Your task to perform on an android device: toggle translation in the chrome app Image 0: 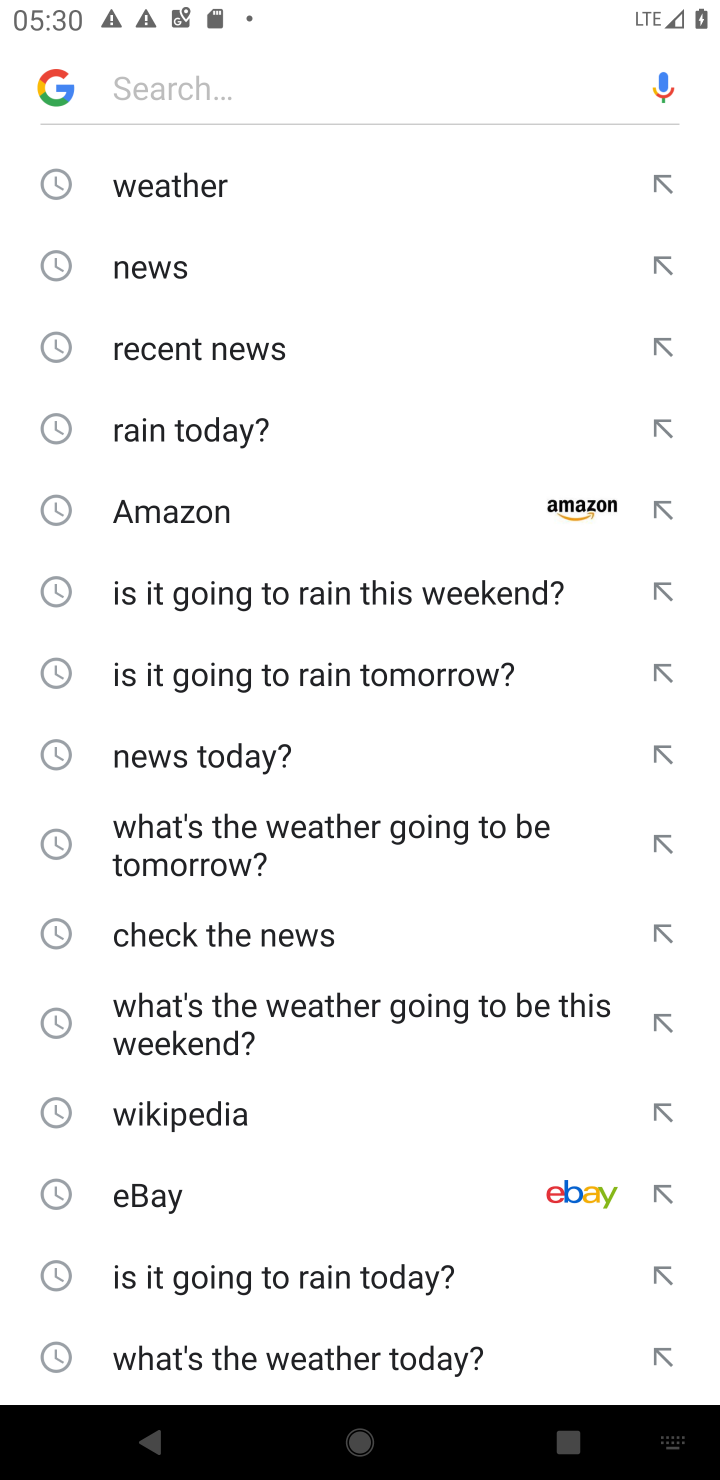
Step 0: press home button
Your task to perform on an android device: toggle translation in the chrome app Image 1: 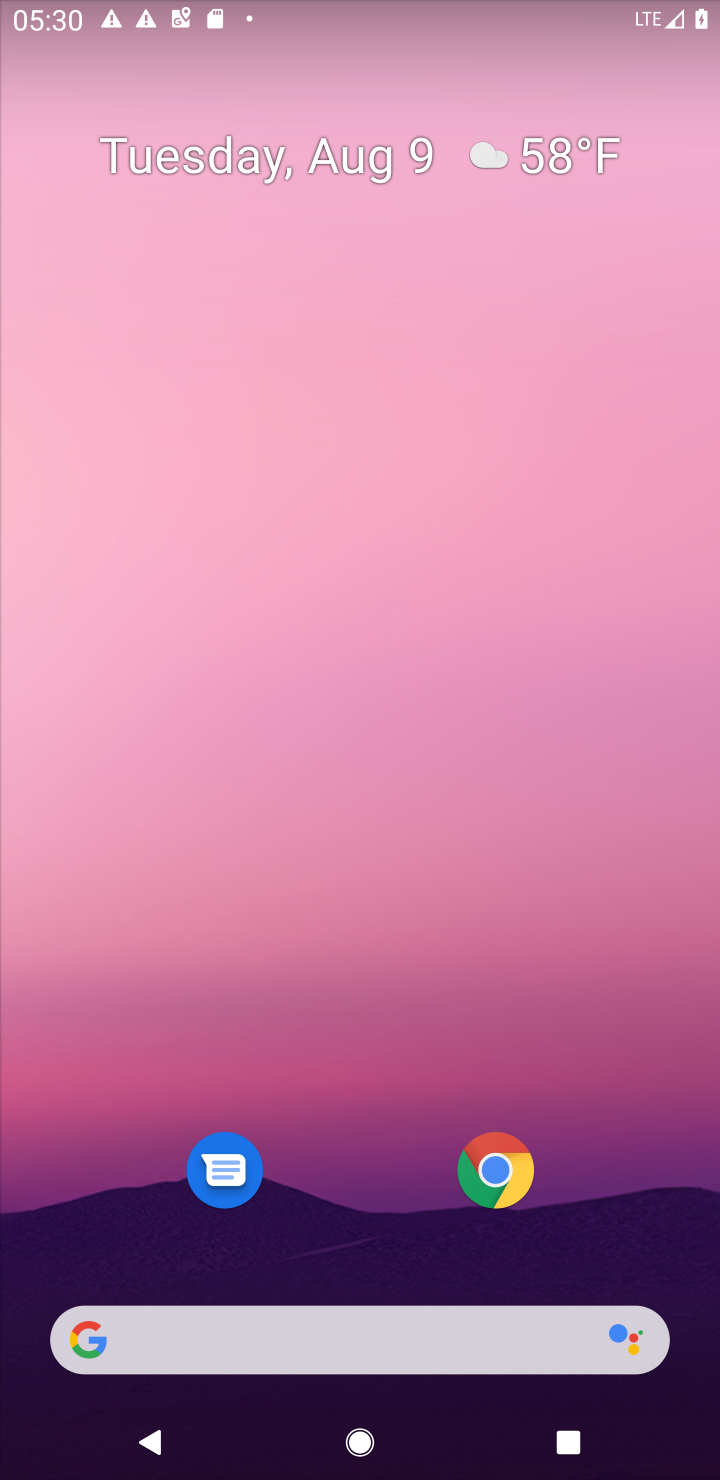
Step 1: drag from (370, 1263) to (18, 709)
Your task to perform on an android device: toggle translation in the chrome app Image 2: 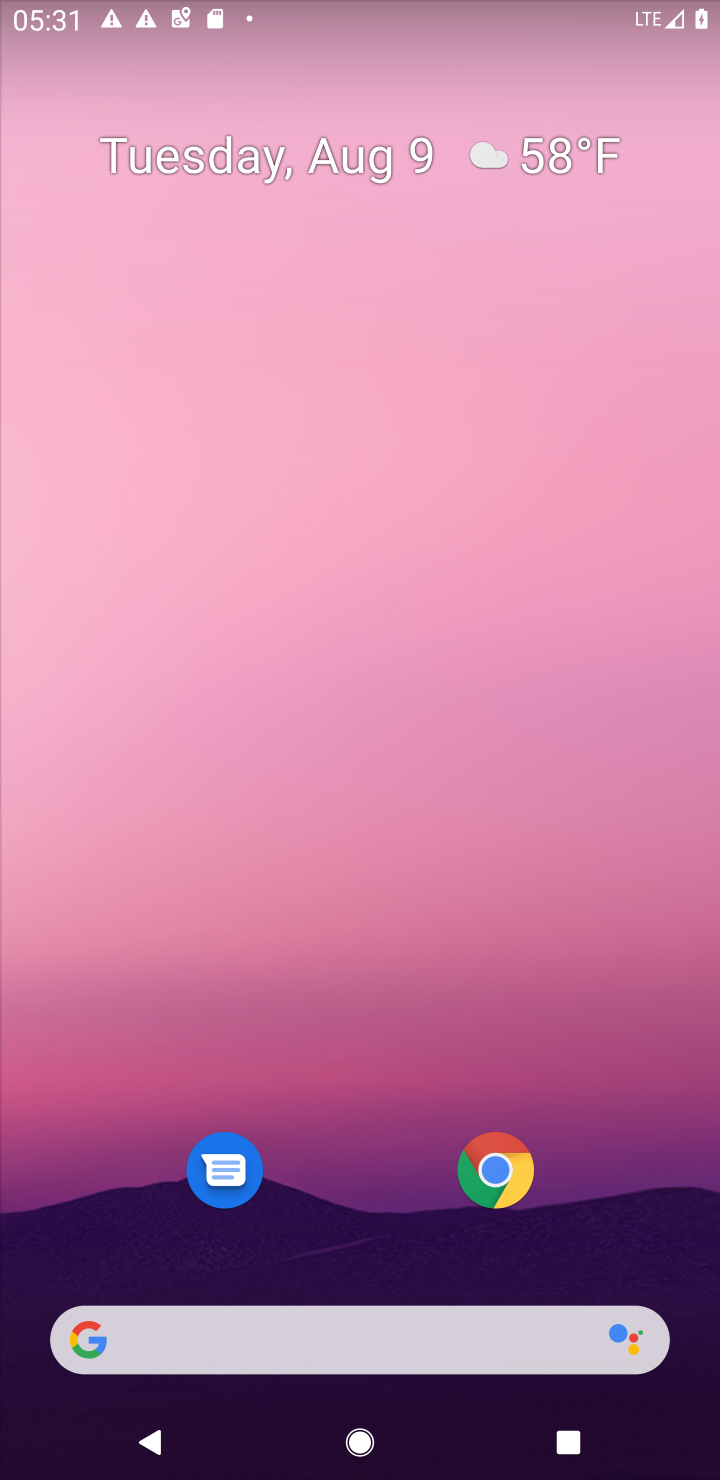
Step 2: click (478, 1192)
Your task to perform on an android device: toggle translation in the chrome app Image 3: 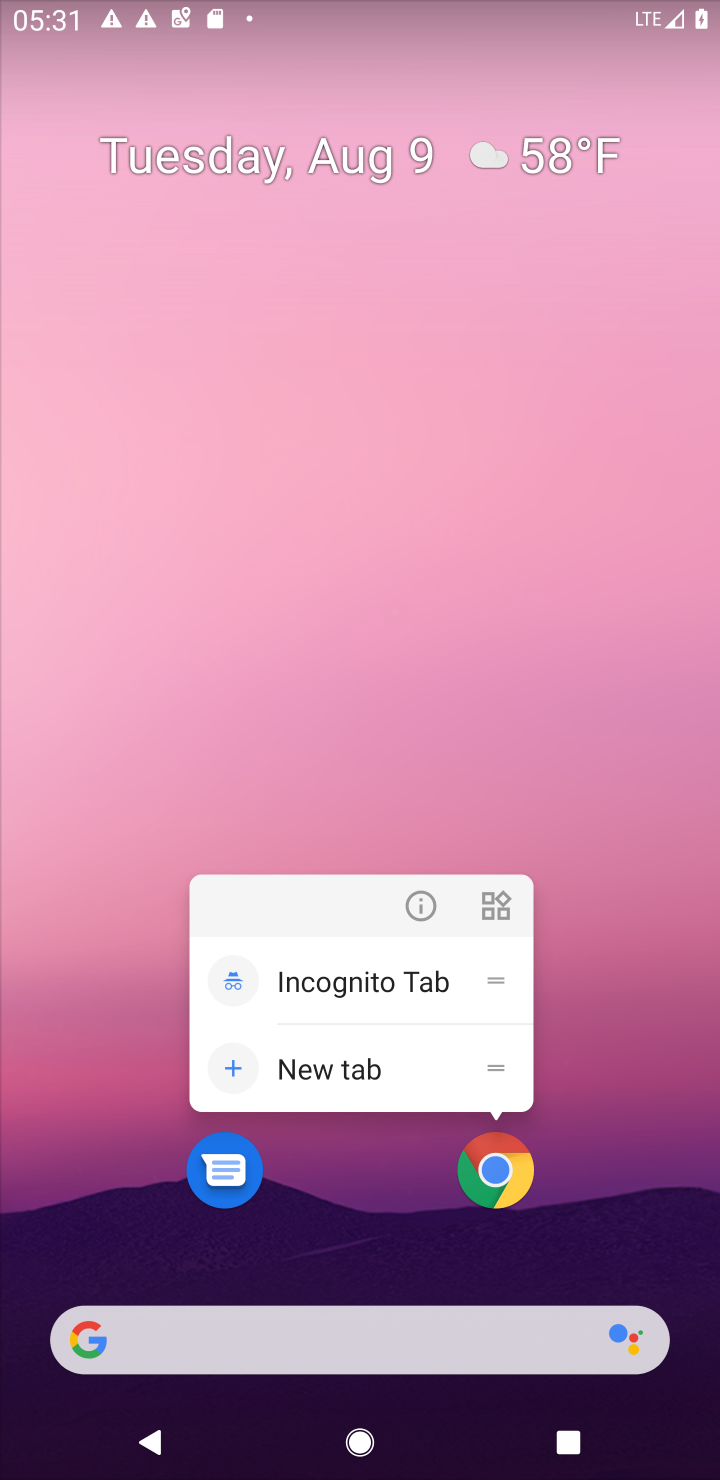
Step 3: click (478, 1192)
Your task to perform on an android device: toggle translation in the chrome app Image 4: 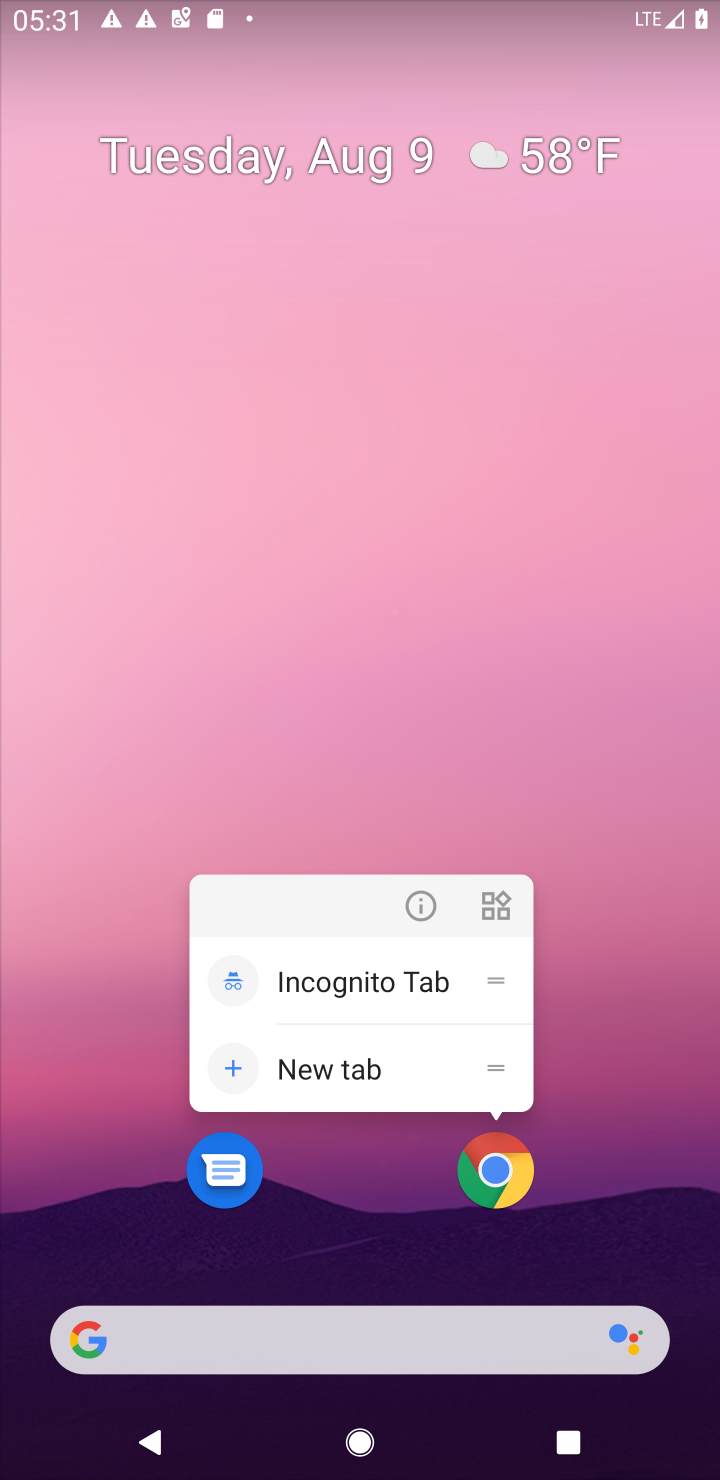
Step 4: click (495, 1174)
Your task to perform on an android device: toggle translation in the chrome app Image 5: 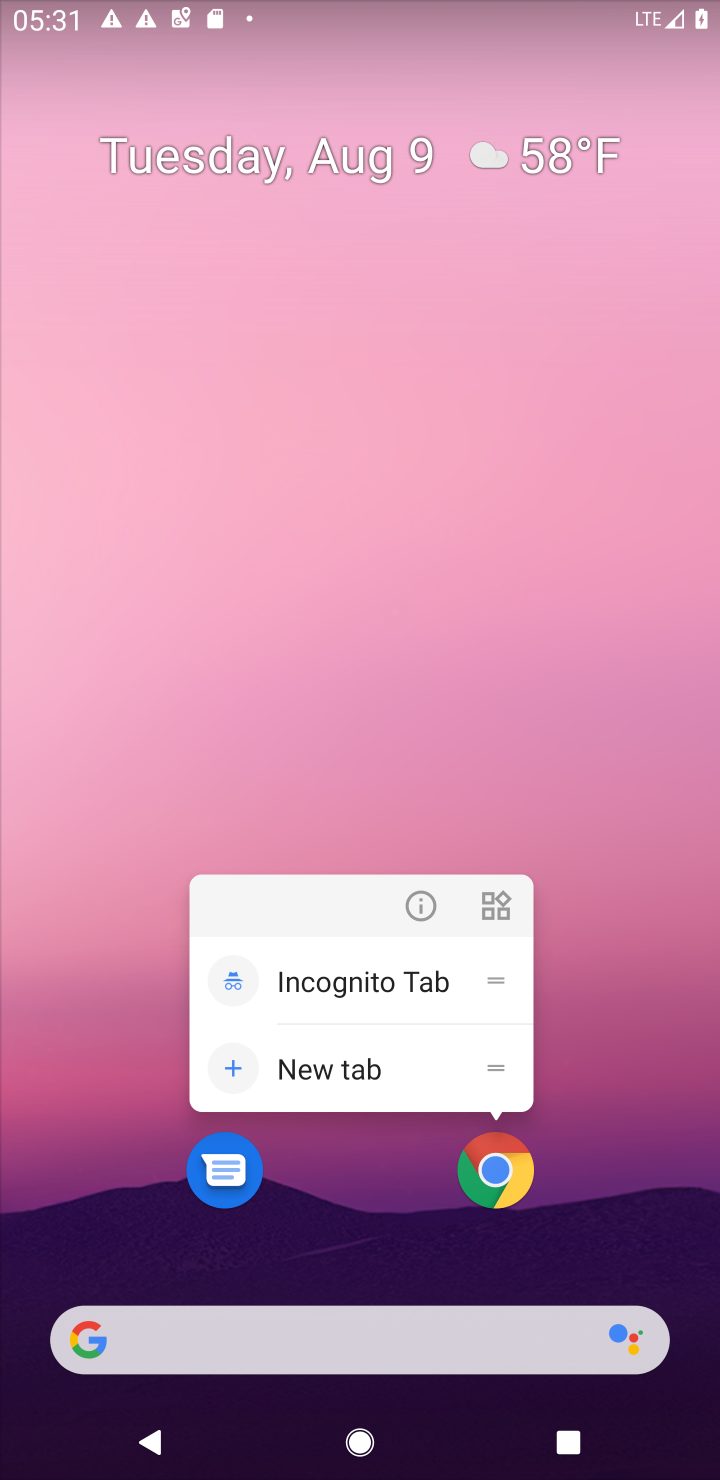
Step 5: click (495, 1174)
Your task to perform on an android device: toggle translation in the chrome app Image 6: 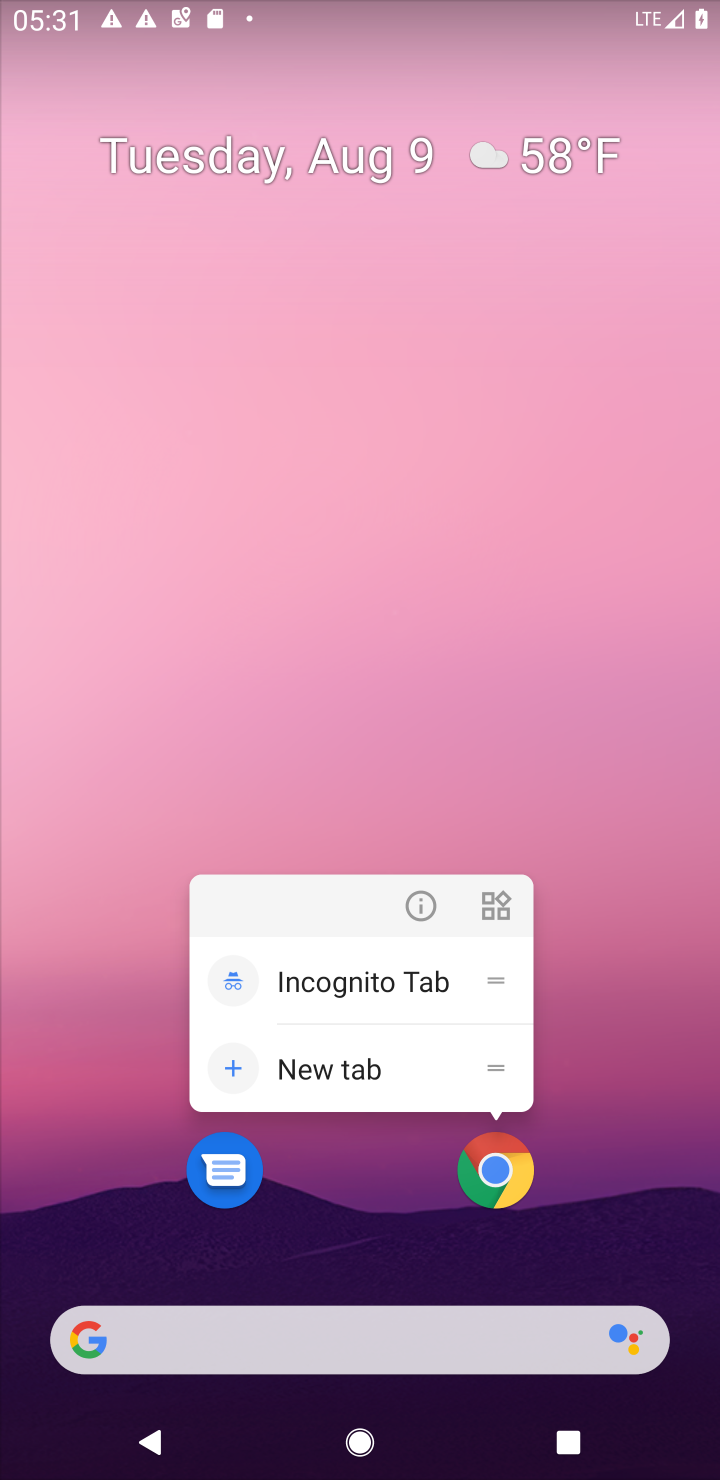
Step 6: click (495, 1175)
Your task to perform on an android device: toggle translation in the chrome app Image 7: 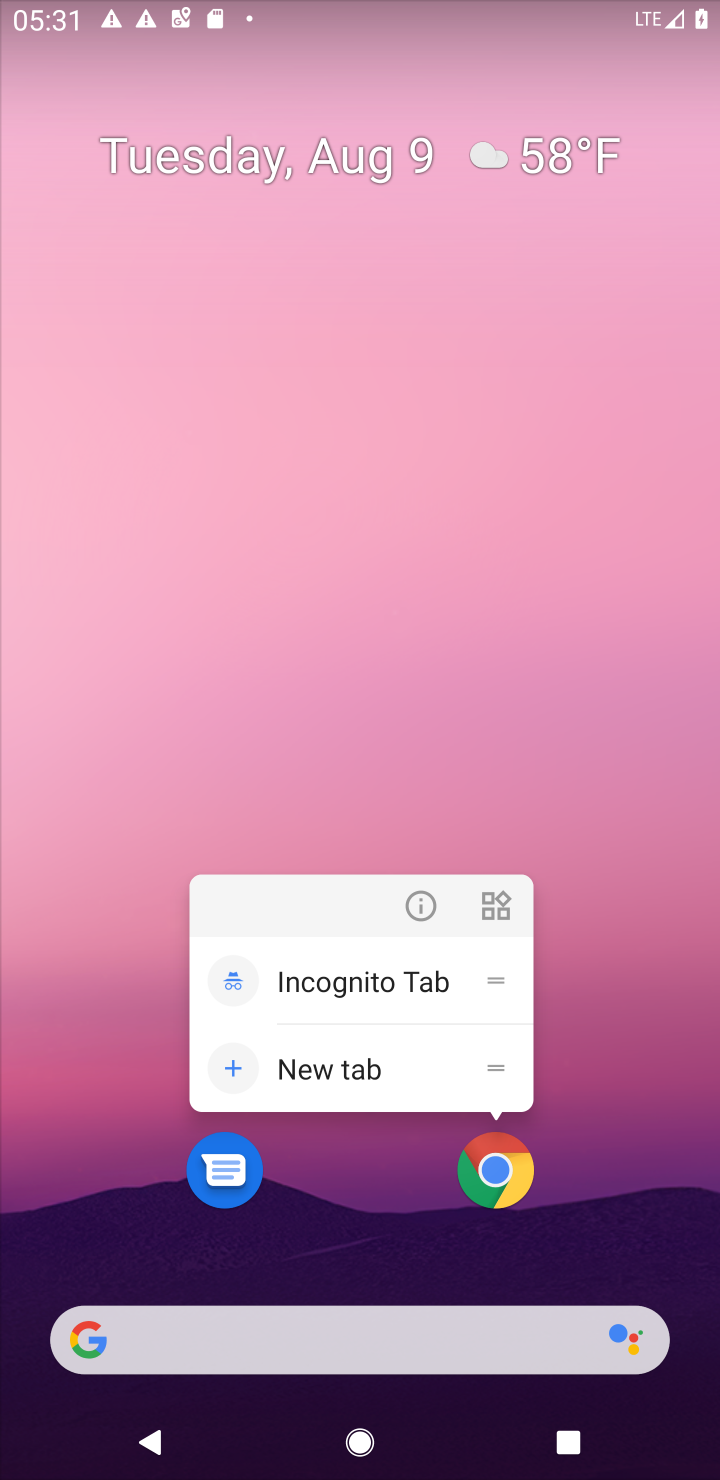
Step 7: click (495, 1177)
Your task to perform on an android device: toggle translation in the chrome app Image 8: 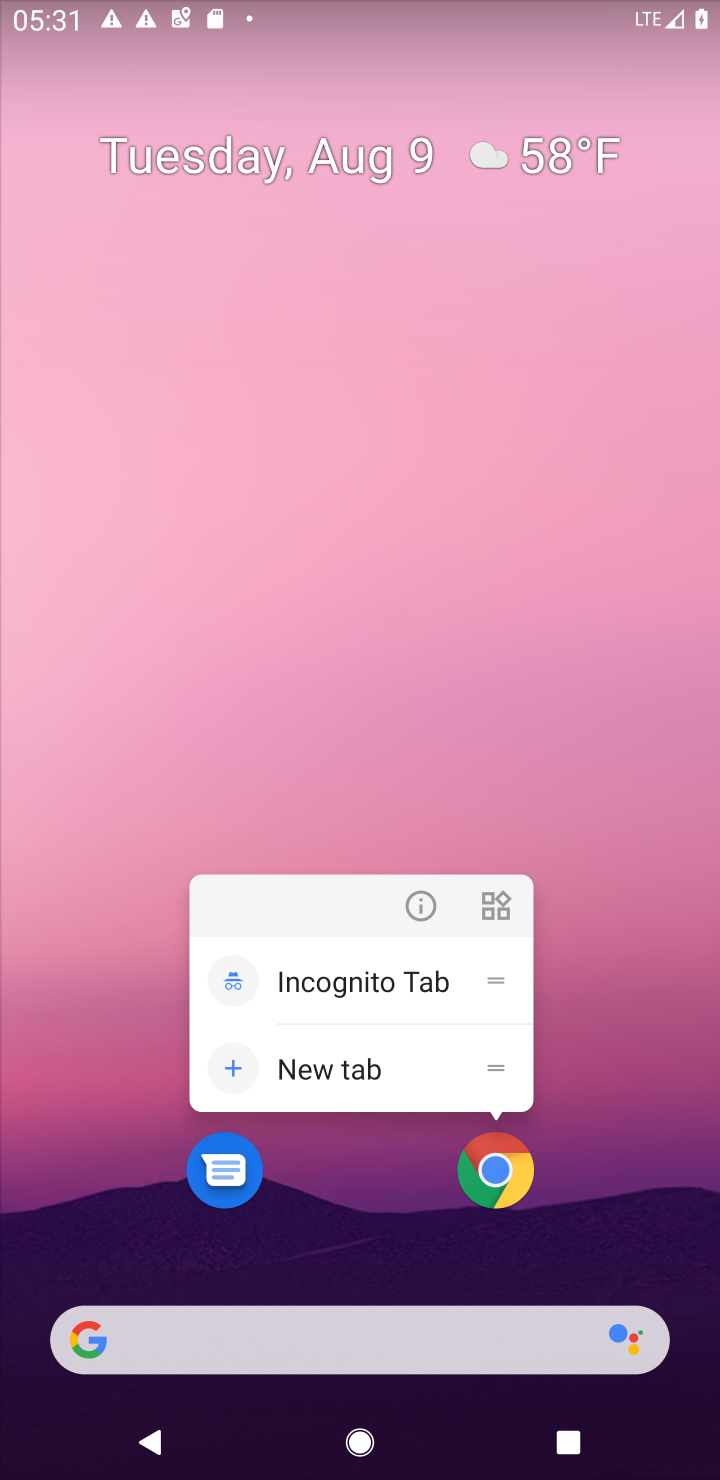
Step 8: click (495, 1177)
Your task to perform on an android device: toggle translation in the chrome app Image 9: 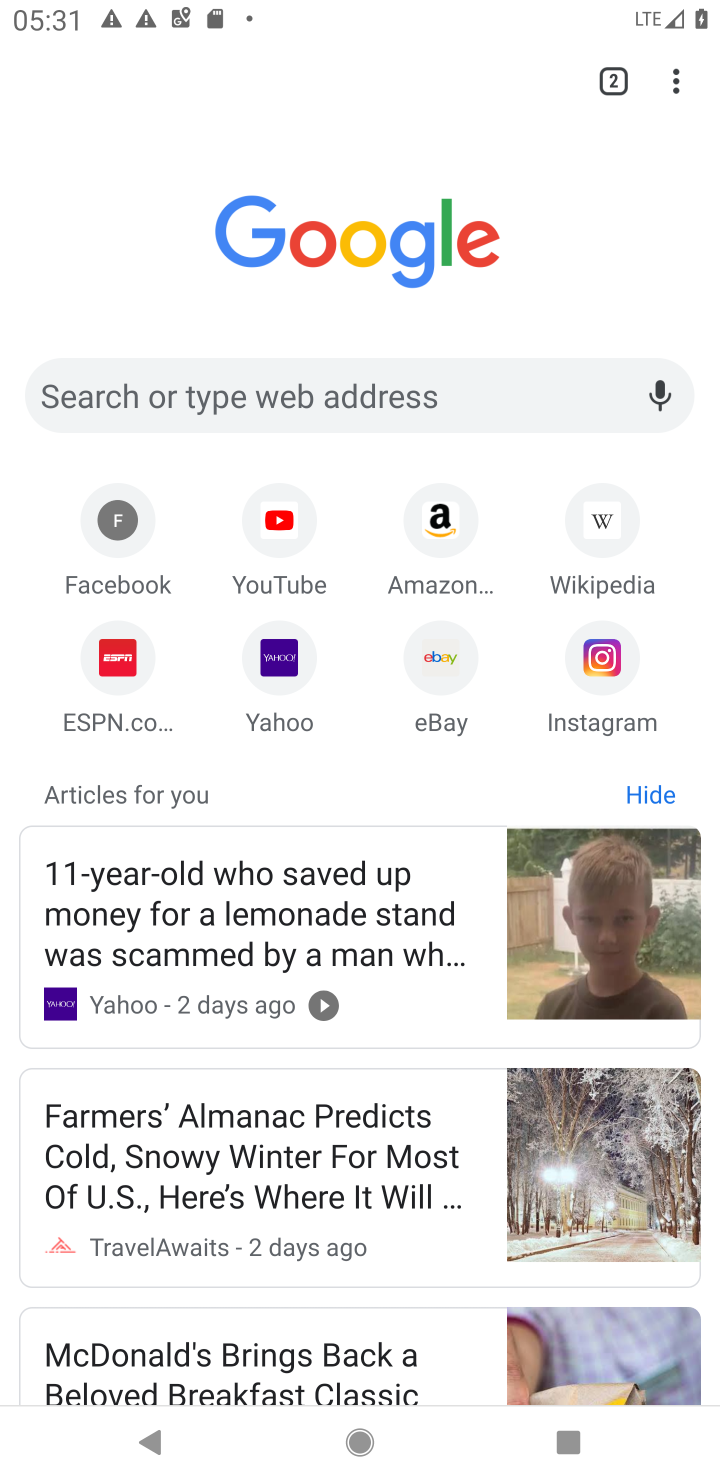
Step 9: drag from (678, 76) to (430, 689)
Your task to perform on an android device: toggle translation in the chrome app Image 10: 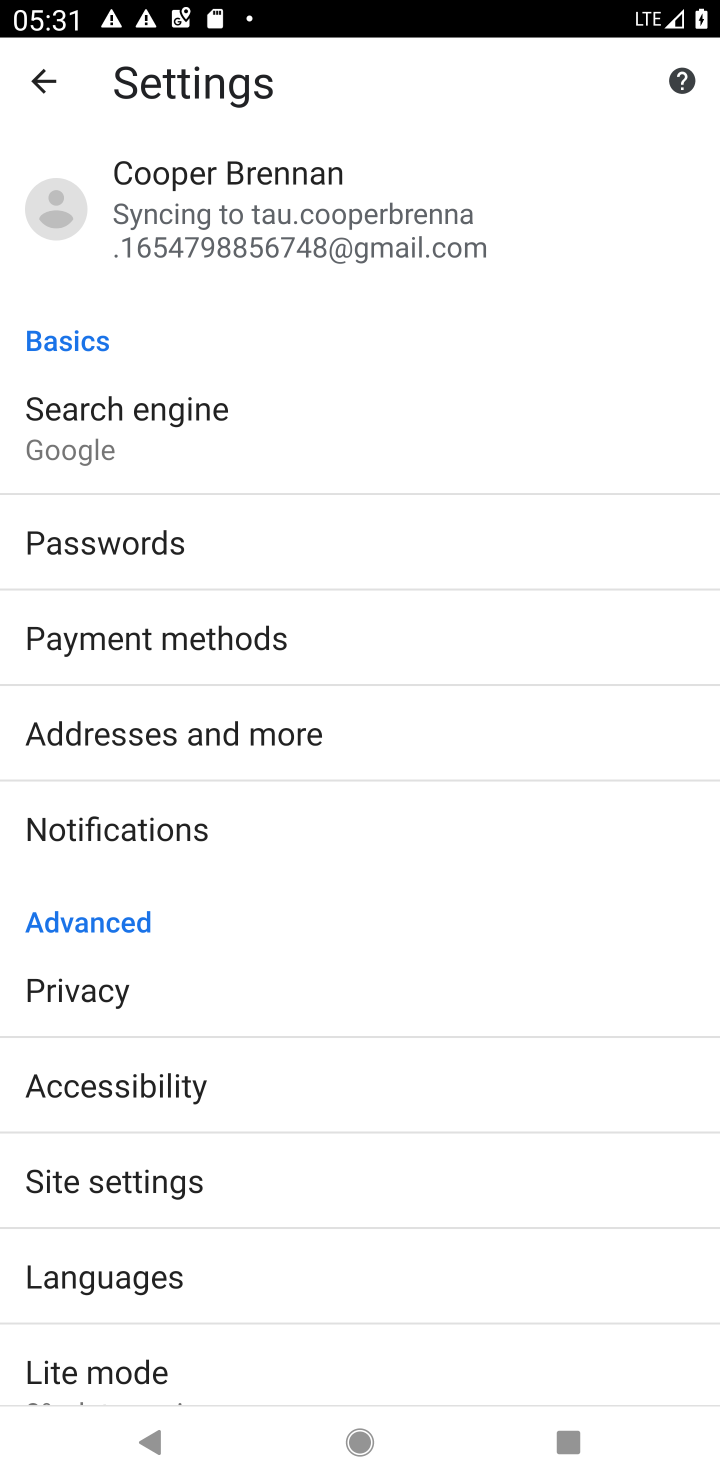
Step 10: click (102, 1278)
Your task to perform on an android device: toggle translation in the chrome app Image 11: 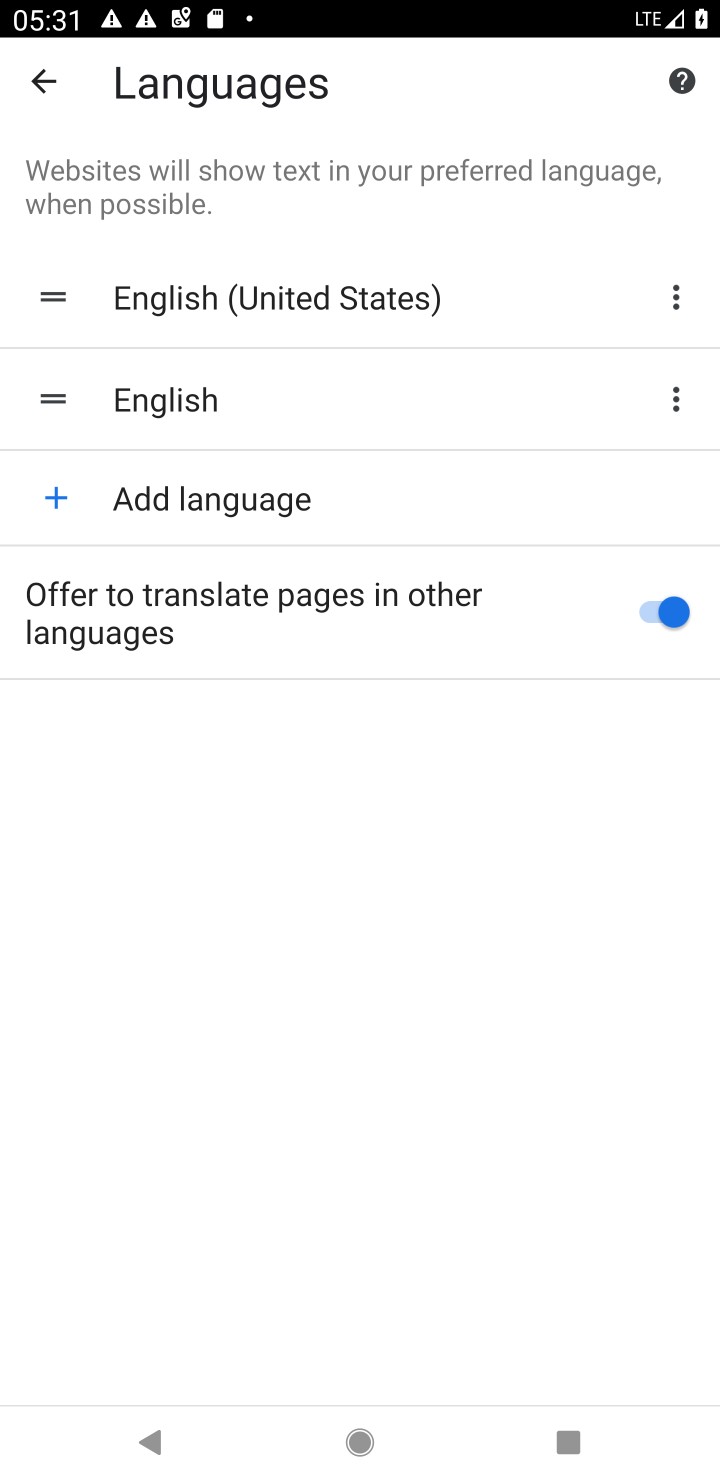
Step 11: click (657, 592)
Your task to perform on an android device: toggle translation in the chrome app Image 12: 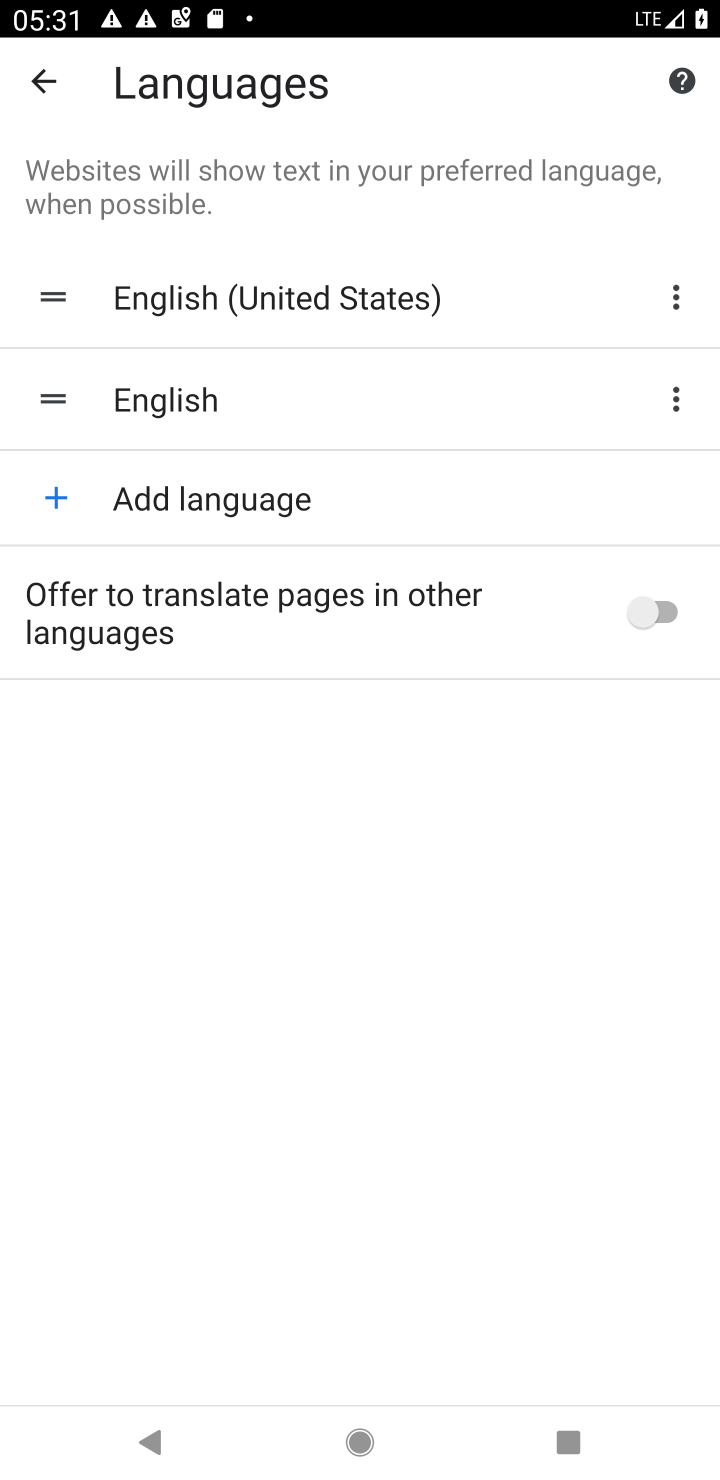
Step 12: task complete